Your task to perform on an android device: Open notification settings Image 0: 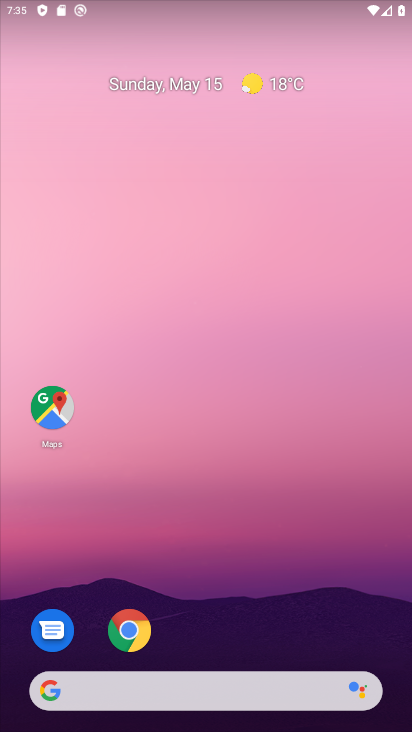
Step 0: drag from (176, 630) to (268, 189)
Your task to perform on an android device: Open notification settings Image 1: 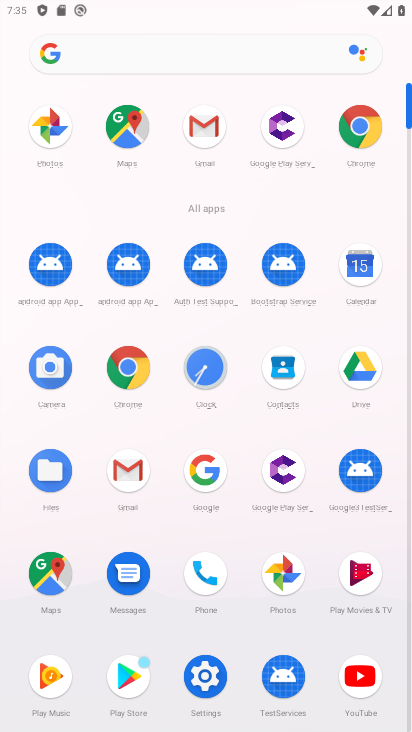
Step 1: drag from (244, 567) to (231, 182)
Your task to perform on an android device: Open notification settings Image 2: 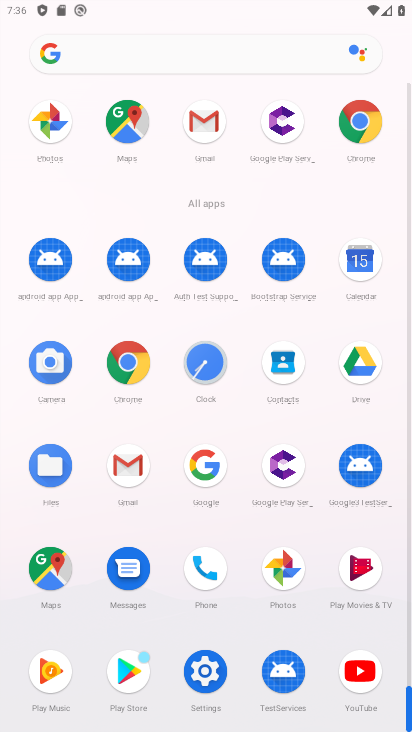
Step 2: click (213, 665)
Your task to perform on an android device: Open notification settings Image 3: 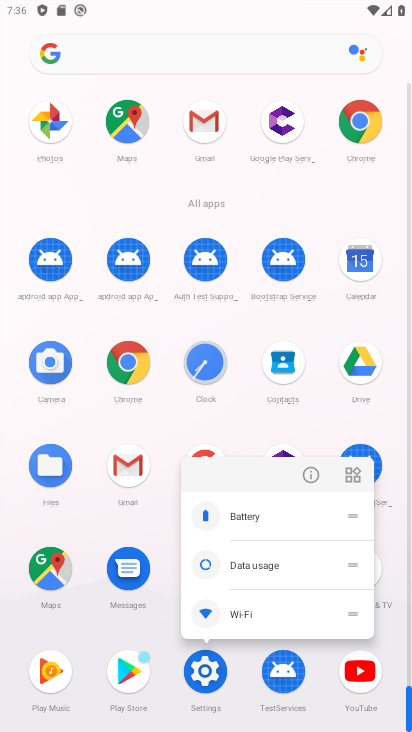
Step 3: click (312, 471)
Your task to perform on an android device: Open notification settings Image 4: 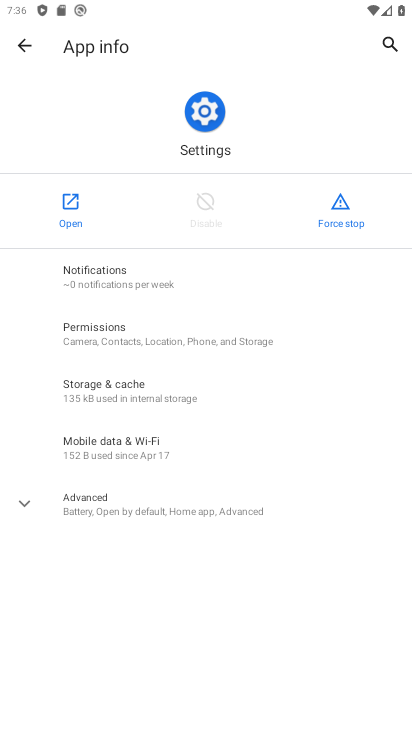
Step 4: click (57, 215)
Your task to perform on an android device: Open notification settings Image 5: 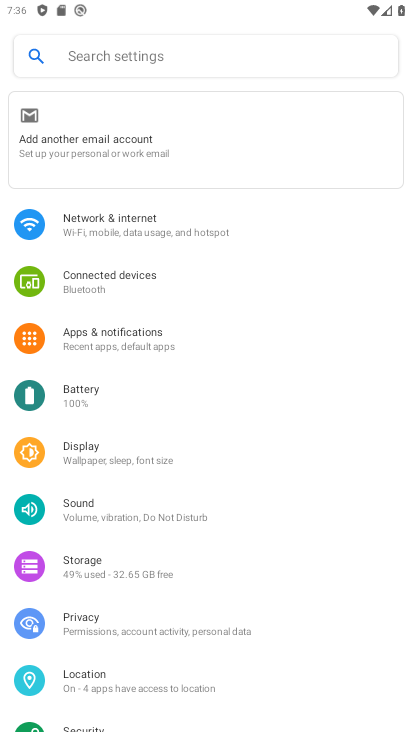
Step 5: click (153, 346)
Your task to perform on an android device: Open notification settings Image 6: 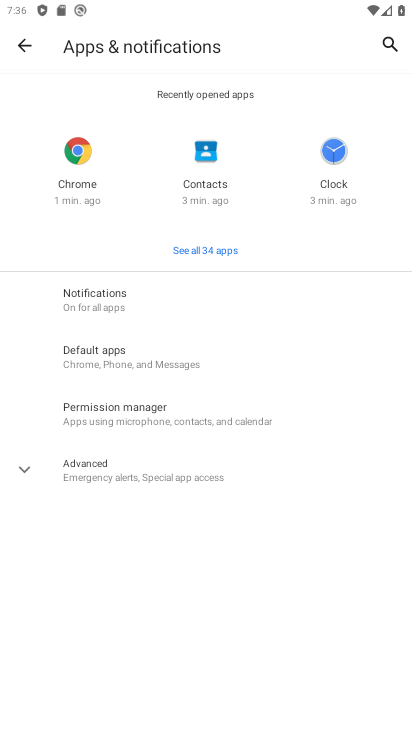
Step 6: click (168, 305)
Your task to perform on an android device: Open notification settings Image 7: 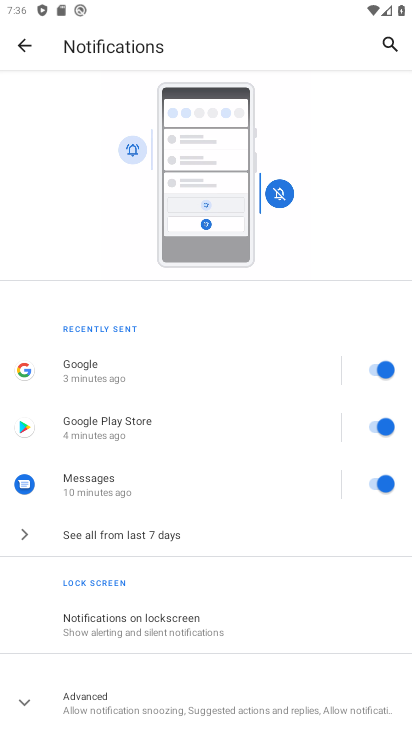
Step 7: task complete